Your task to perform on an android device: Open location settings Image 0: 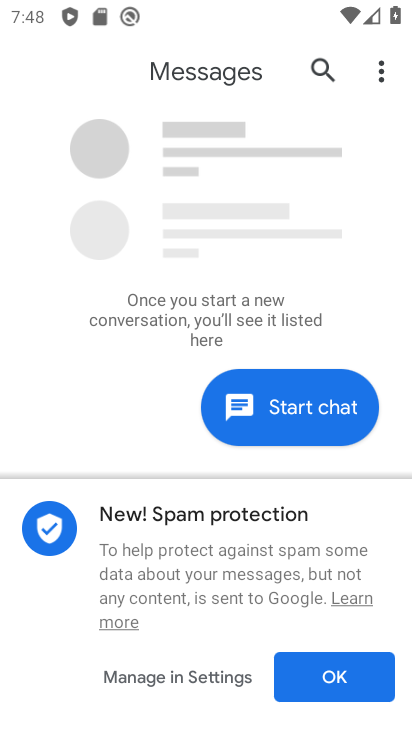
Step 0: press home button
Your task to perform on an android device: Open location settings Image 1: 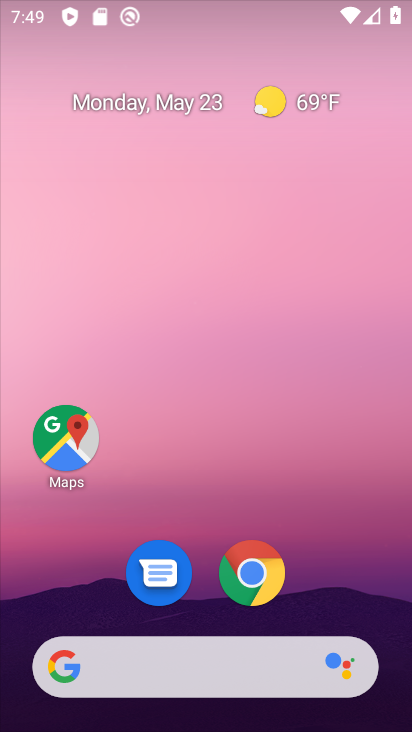
Step 1: drag from (205, 579) to (296, 78)
Your task to perform on an android device: Open location settings Image 2: 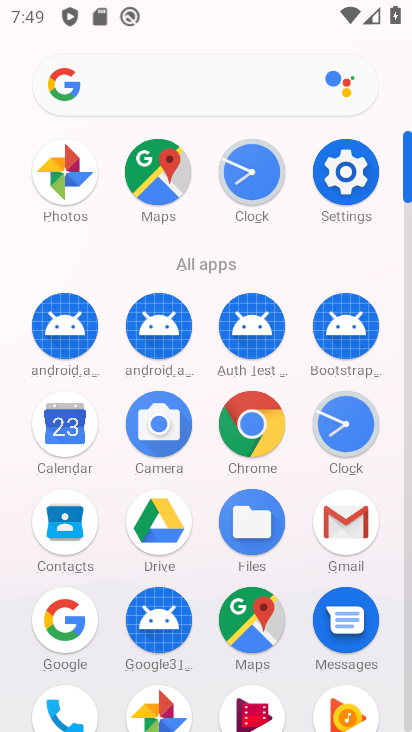
Step 2: click (345, 178)
Your task to perform on an android device: Open location settings Image 3: 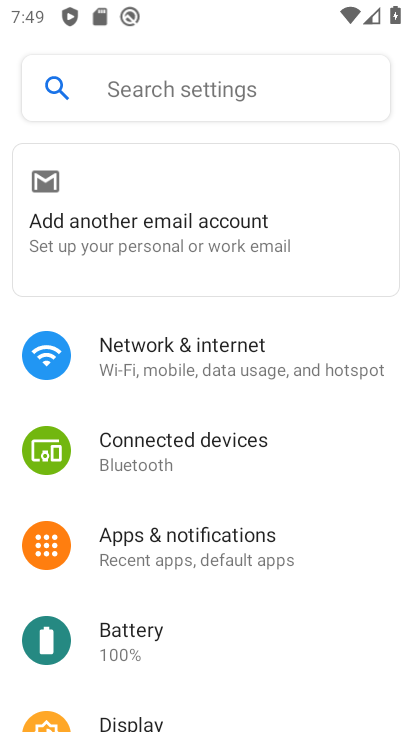
Step 3: drag from (228, 633) to (276, 169)
Your task to perform on an android device: Open location settings Image 4: 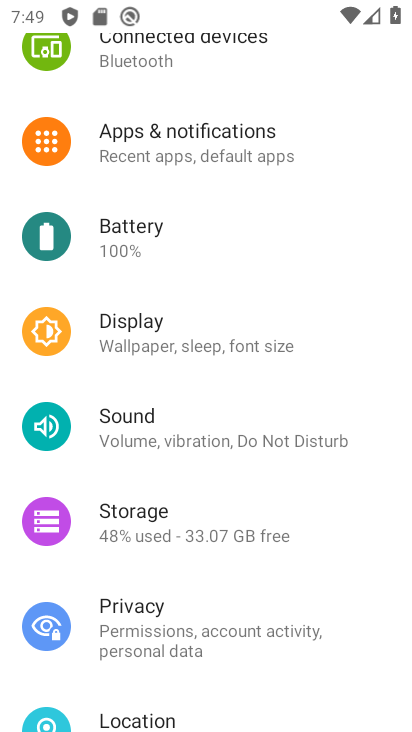
Step 4: click (129, 718)
Your task to perform on an android device: Open location settings Image 5: 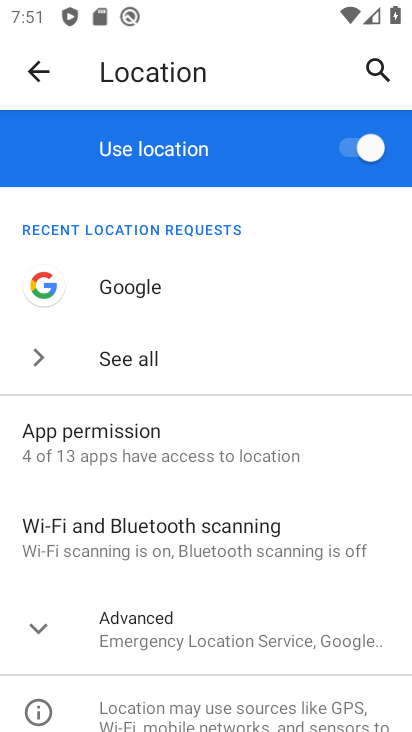
Step 5: task complete